Your task to perform on an android device: check android version Image 0: 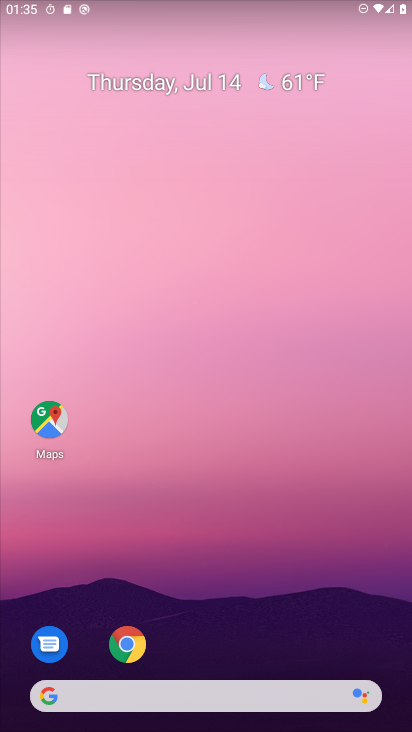
Step 0: drag from (296, 572) to (266, 116)
Your task to perform on an android device: check android version Image 1: 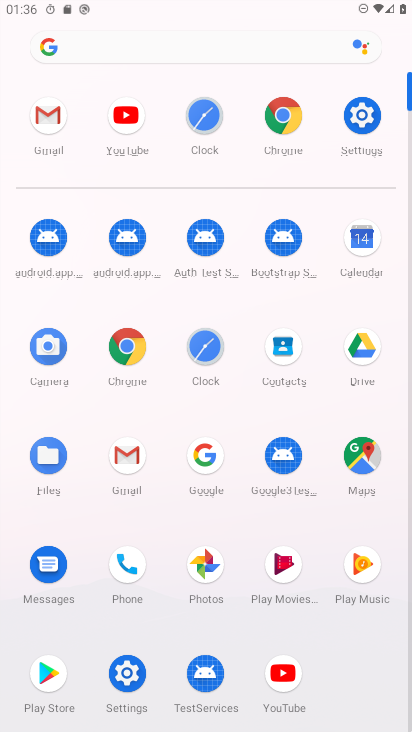
Step 1: click (363, 117)
Your task to perform on an android device: check android version Image 2: 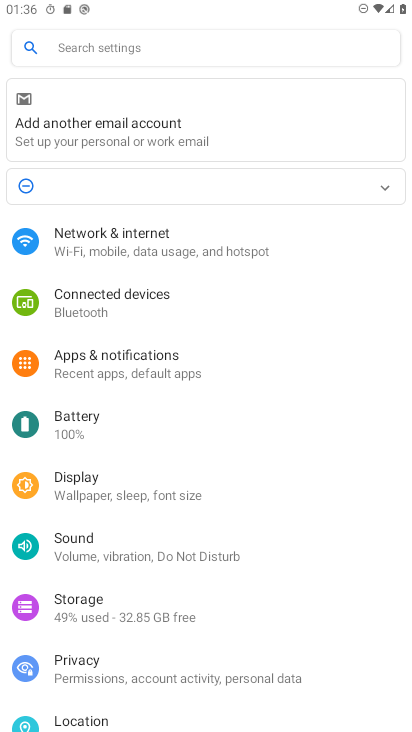
Step 2: drag from (186, 674) to (213, 198)
Your task to perform on an android device: check android version Image 3: 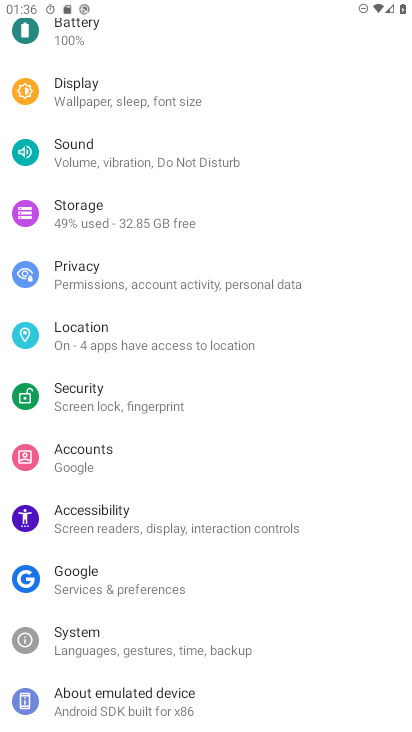
Step 3: drag from (220, 568) to (234, 223)
Your task to perform on an android device: check android version Image 4: 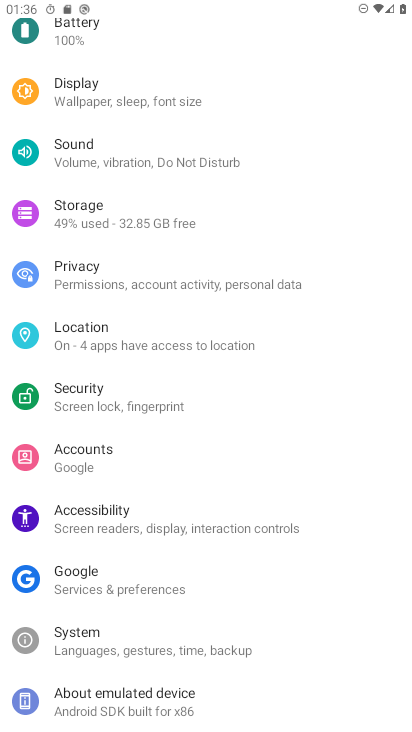
Step 4: click (152, 686)
Your task to perform on an android device: check android version Image 5: 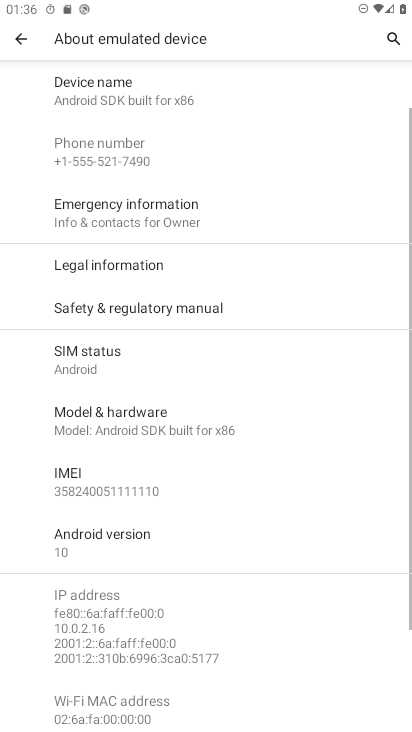
Step 5: drag from (239, 625) to (255, 311)
Your task to perform on an android device: check android version Image 6: 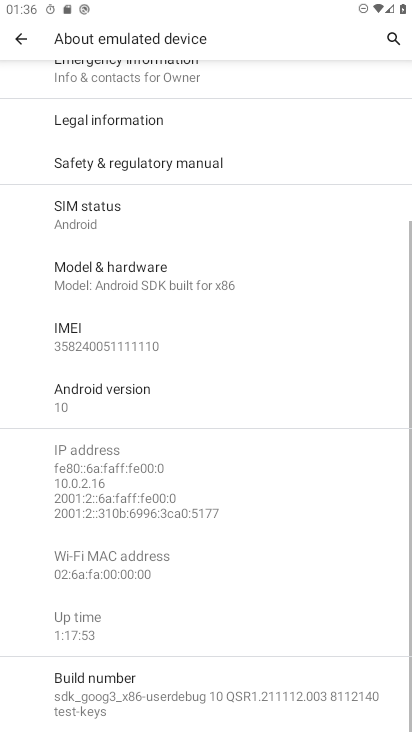
Step 6: click (118, 397)
Your task to perform on an android device: check android version Image 7: 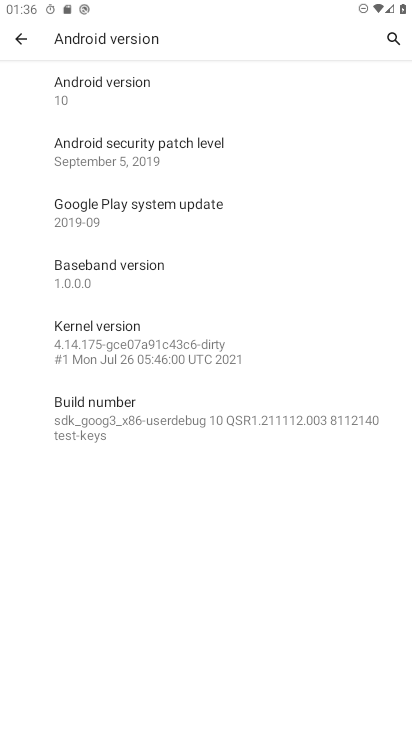
Step 7: task complete